Your task to perform on an android device: check the backup settings in the google photos Image 0: 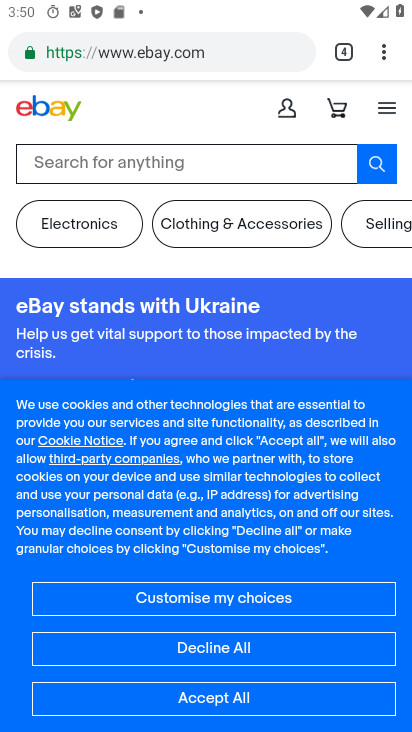
Step 0: press home button
Your task to perform on an android device: check the backup settings in the google photos Image 1: 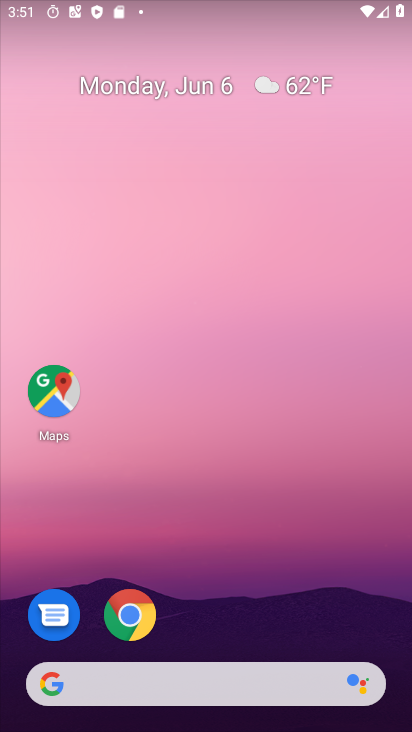
Step 1: drag from (333, 679) to (304, 15)
Your task to perform on an android device: check the backup settings in the google photos Image 2: 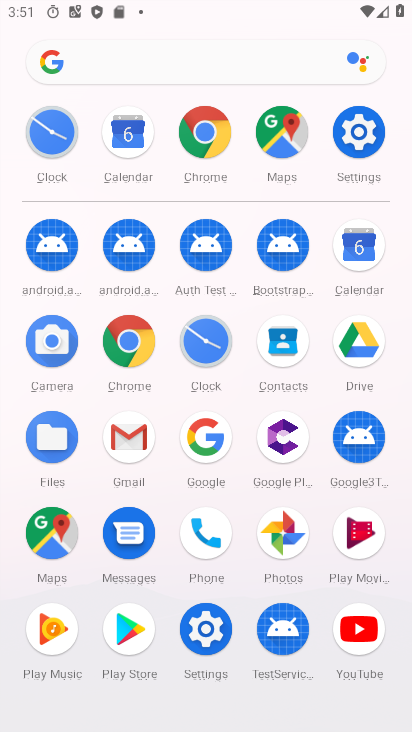
Step 2: click (294, 547)
Your task to perform on an android device: check the backup settings in the google photos Image 3: 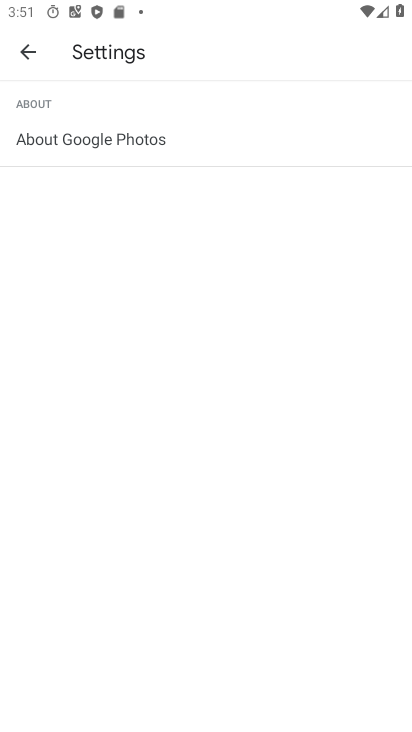
Step 3: press back button
Your task to perform on an android device: check the backup settings in the google photos Image 4: 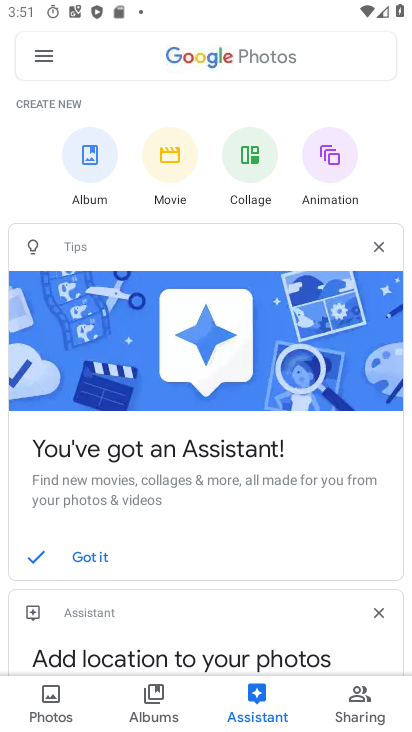
Step 4: click (50, 57)
Your task to perform on an android device: check the backup settings in the google photos Image 5: 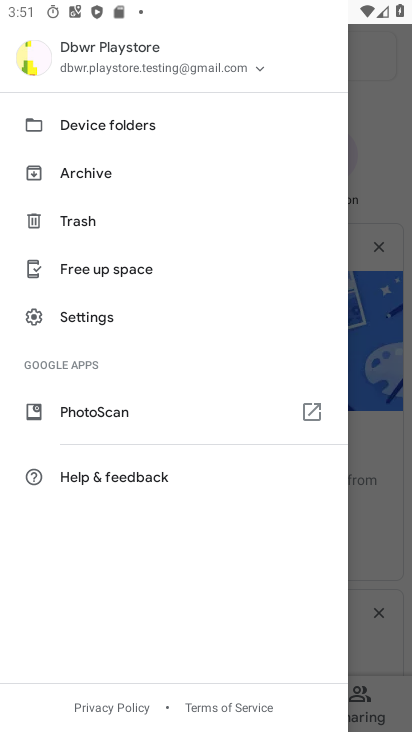
Step 5: click (103, 318)
Your task to perform on an android device: check the backup settings in the google photos Image 6: 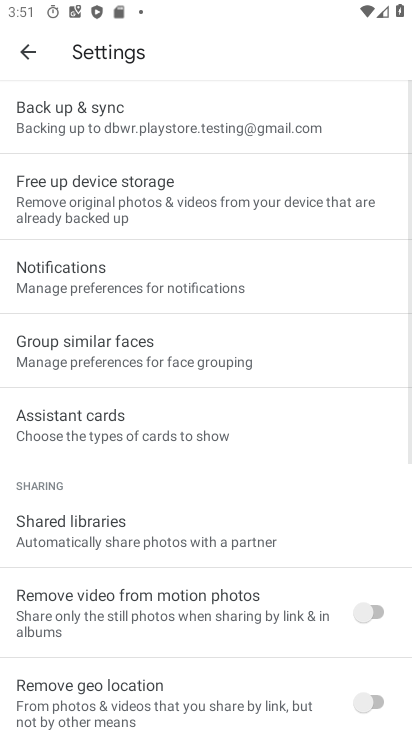
Step 6: click (163, 128)
Your task to perform on an android device: check the backup settings in the google photos Image 7: 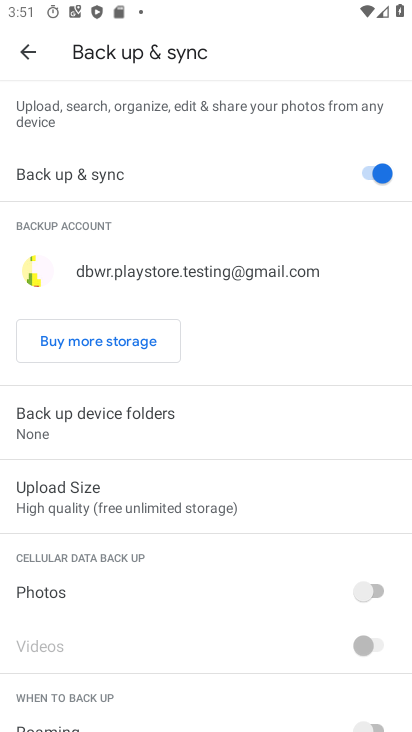
Step 7: task complete